Your task to perform on an android device: check google app version Image 0: 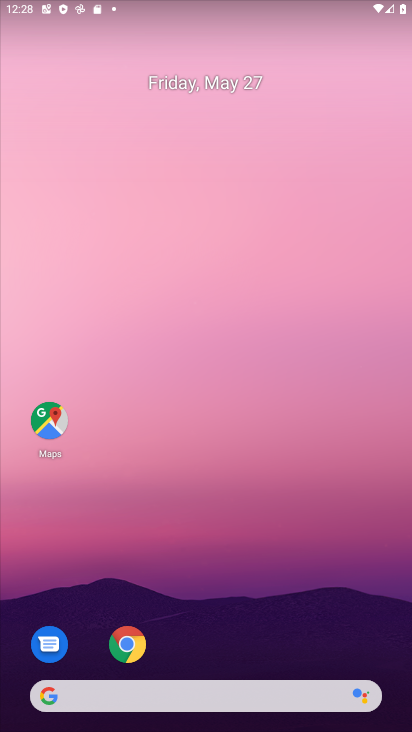
Step 0: drag from (322, 603) to (304, 16)
Your task to perform on an android device: check google app version Image 1: 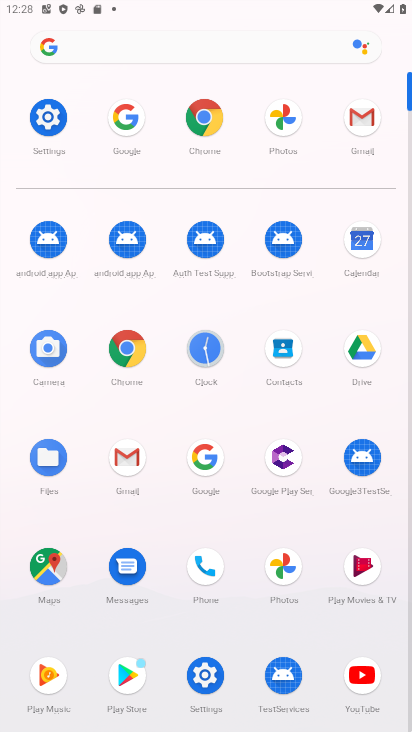
Step 1: click (36, 127)
Your task to perform on an android device: check google app version Image 2: 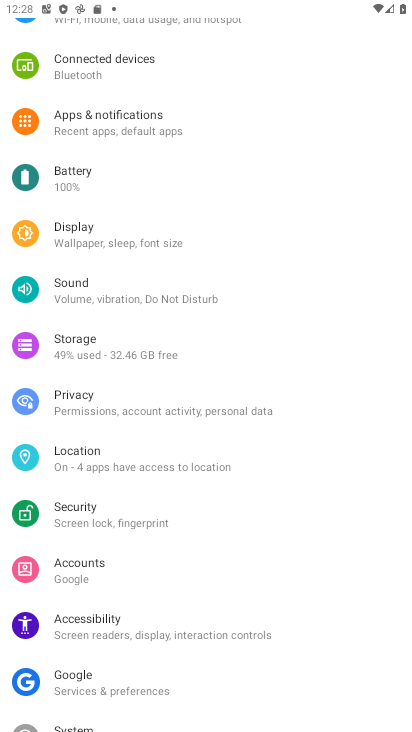
Step 2: drag from (117, 693) to (210, 75)
Your task to perform on an android device: check google app version Image 3: 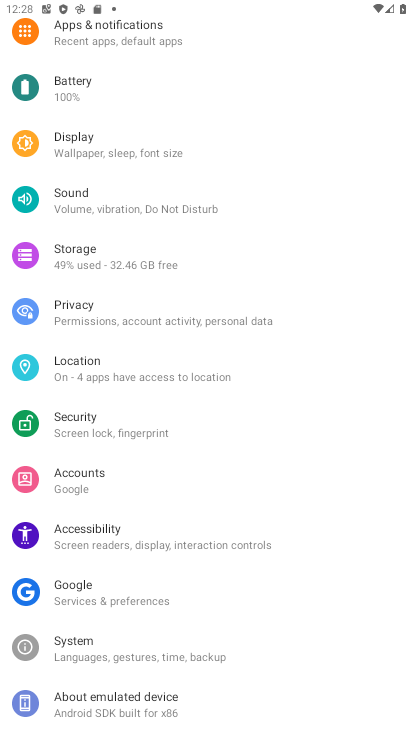
Step 3: click (149, 717)
Your task to perform on an android device: check google app version Image 4: 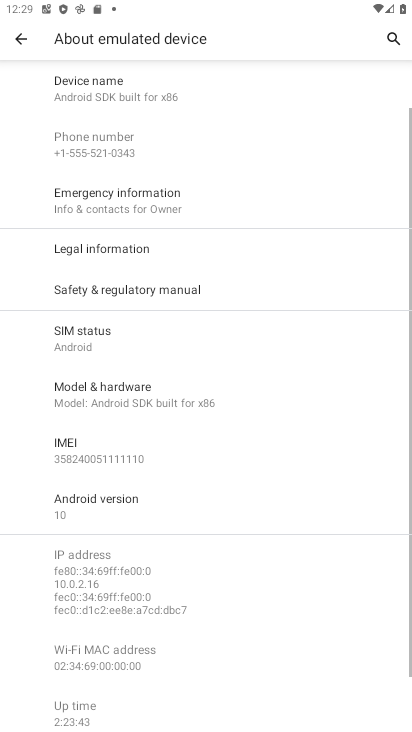
Step 4: click (151, 517)
Your task to perform on an android device: check google app version Image 5: 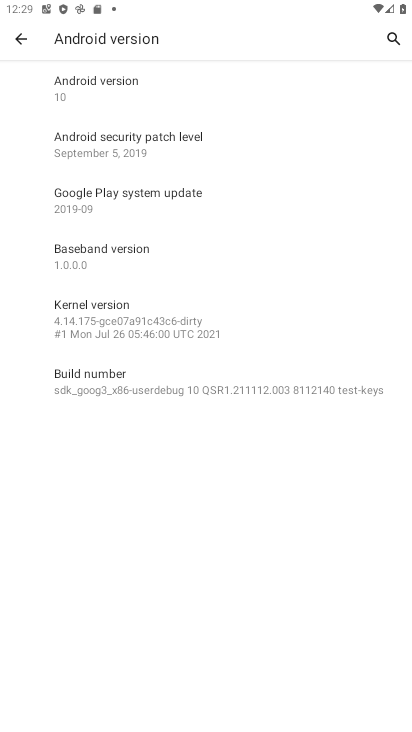
Step 5: task complete